Your task to perform on an android device: open chrome privacy settings Image 0: 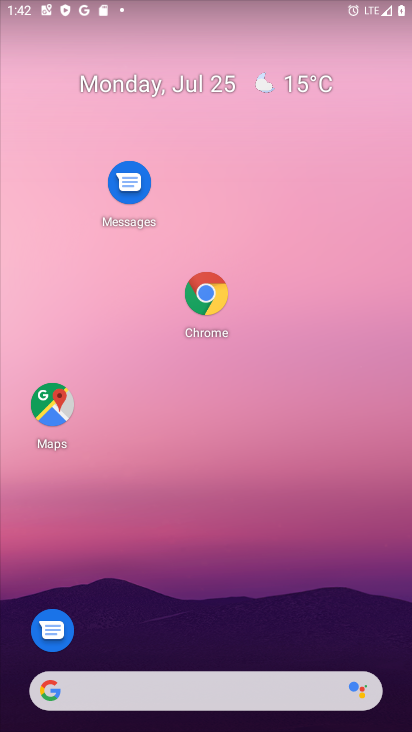
Step 0: drag from (224, 573) to (142, 11)
Your task to perform on an android device: open chrome privacy settings Image 1: 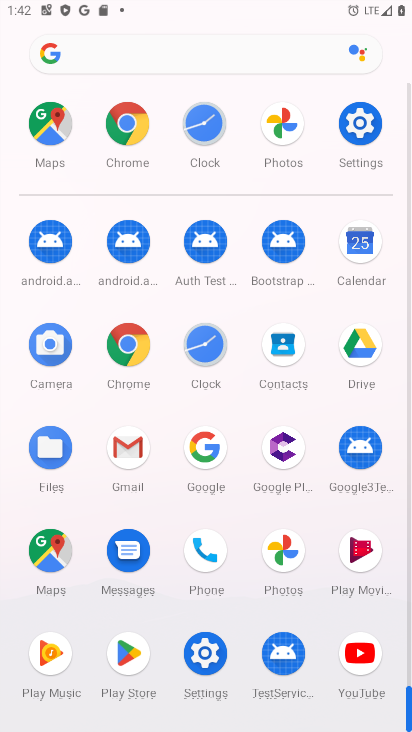
Step 1: click (124, 336)
Your task to perform on an android device: open chrome privacy settings Image 2: 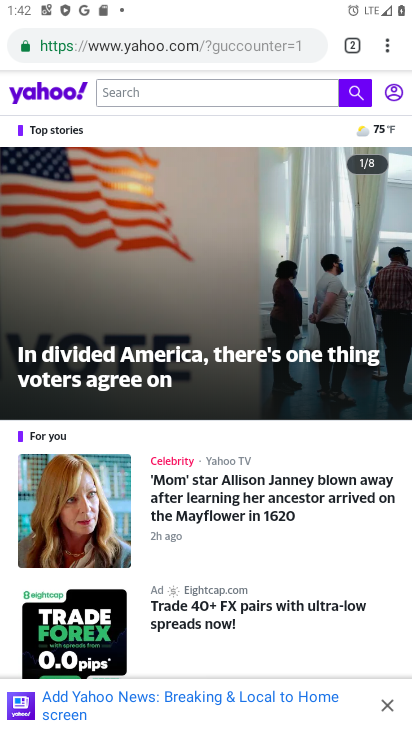
Step 2: drag from (383, 43) to (254, 595)
Your task to perform on an android device: open chrome privacy settings Image 3: 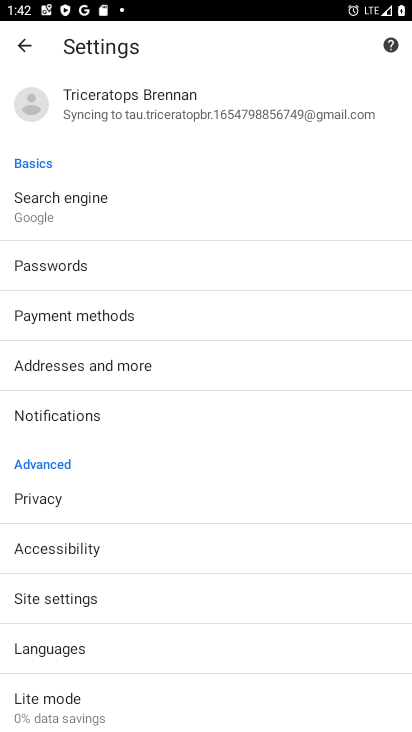
Step 3: click (48, 493)
Your task to perform on an android device: open chrome privacy settings Image 4: 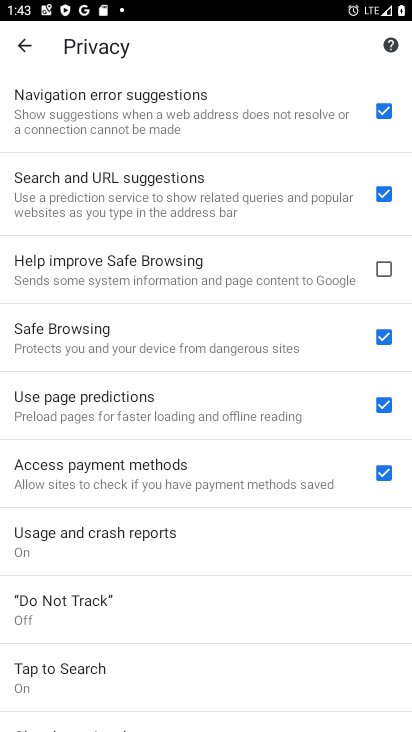
Step 4: task complete